Your task to perform on an android device: change the clock display to show seconds Image 0: 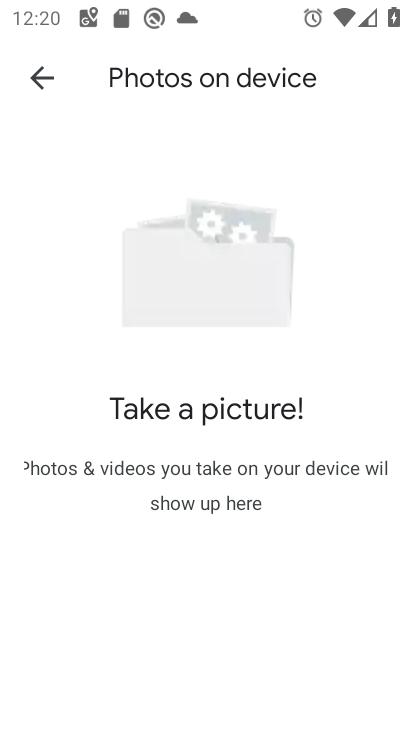
Step 0: press home button
Your task to perform on an android device: change the clock display to show seconds Image 1: 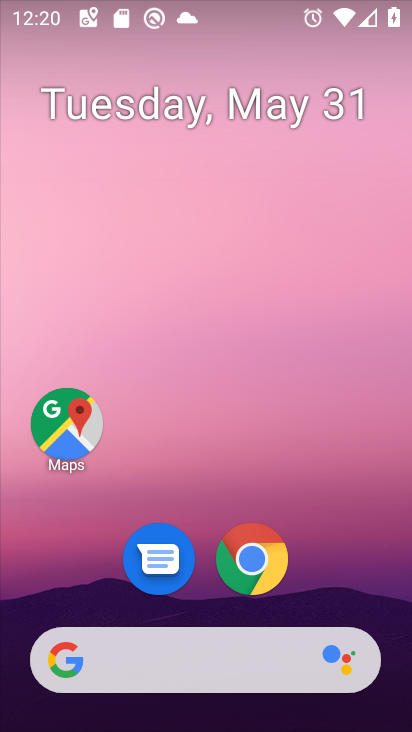
Step 1: drag from (338, 566) to (217, 126)
Your task to perform on an android device: change the clock display to show seconds Image 2: 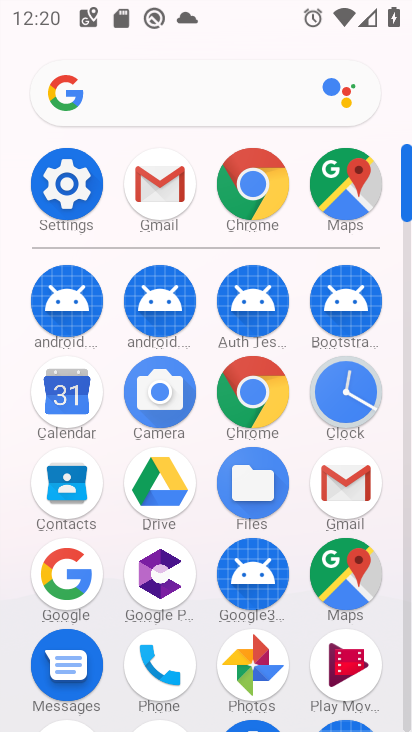
Step 2: click (358, 395)
Your task to perform on an android device: change the clock display to show seconds Image 3: 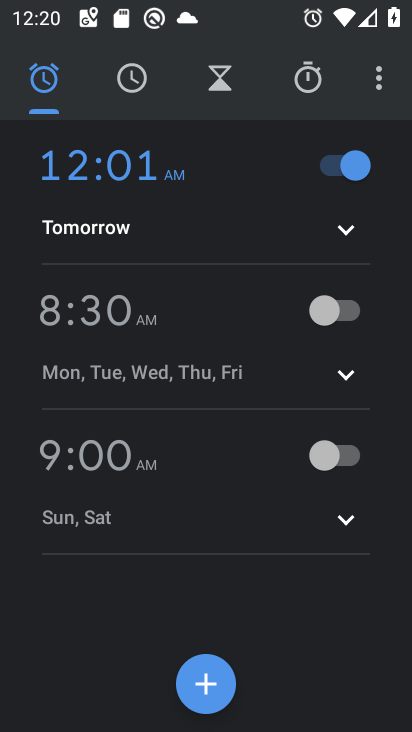
Step 3: click (386, 77)
Your task to perform on an android device: change the clock display to show seconds Image 4: 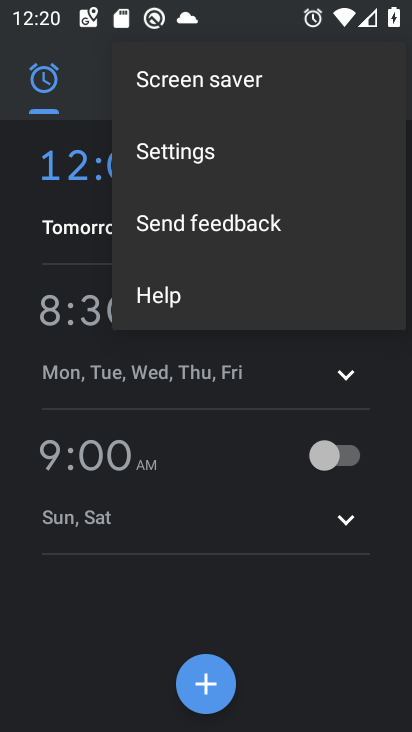
Step 4: click (266, 150)
Your task to perform on an android device: change the clock display to show seconds Image 5: 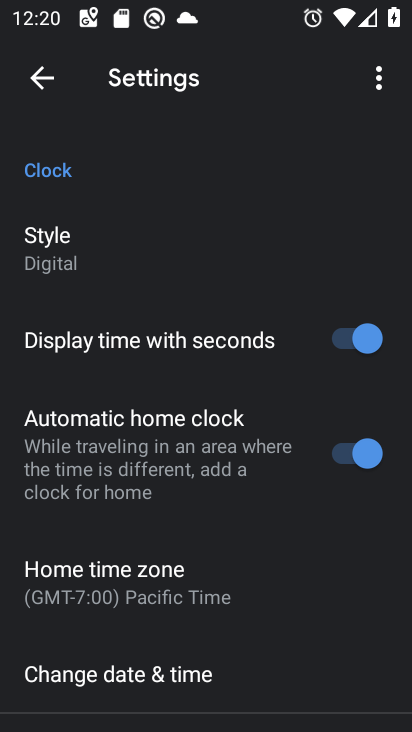
Step 5: task complete